Your task to perform on an android device: find which apps use the phone's location Image 0: 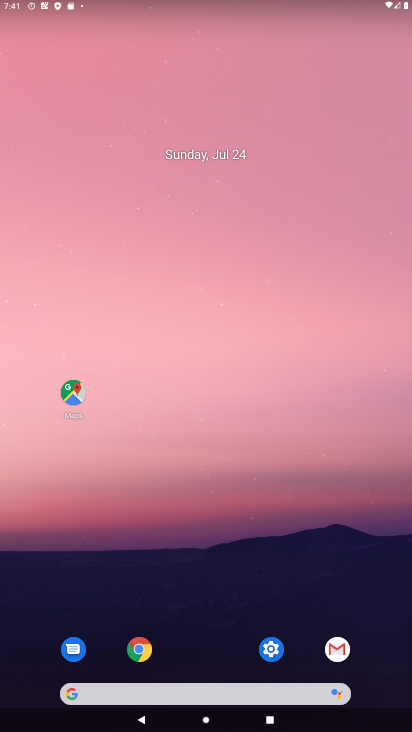
Step 0: click (262, 661)
Your task to perform on an android device: find which apps use the phone's location Image 1: 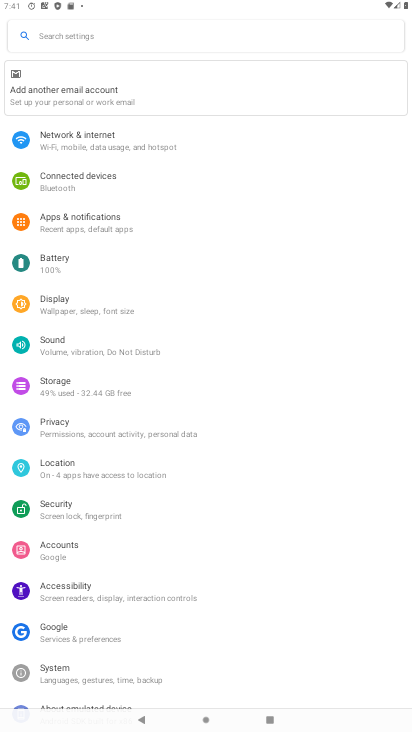
Step 1: click (70, 468)
Your task to perform on an android device: find which apps use the phone's location Image 2: 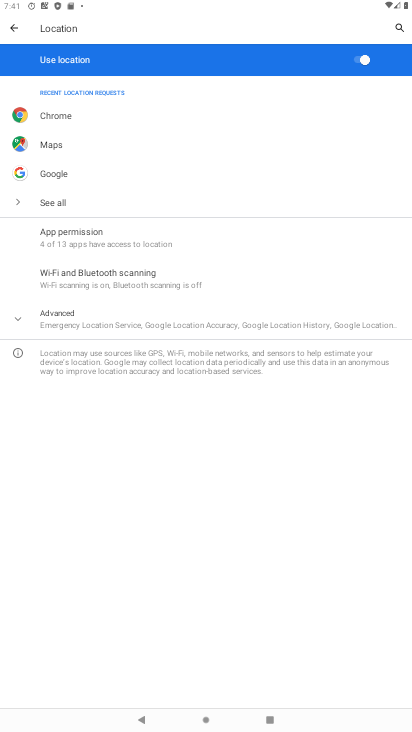
Step 2: task complete